Your task to perform on an android device: turn on showing notifications on the lock screen Image 0: 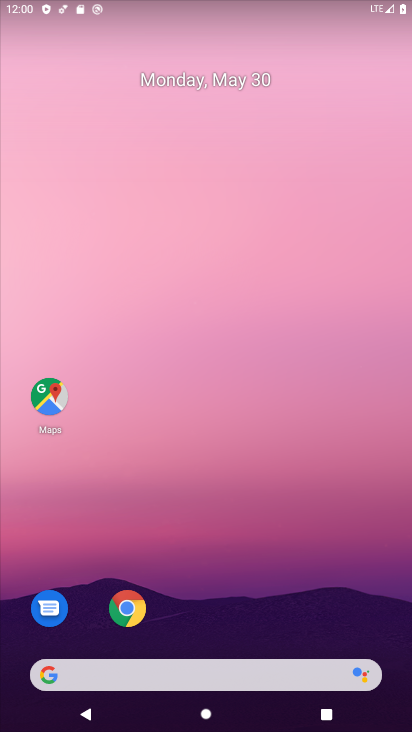
Step 0: drag from (192, 628) to (238, 132)
Your task to perform on an android device: turn on showing notifications on the lock screen Image 1: 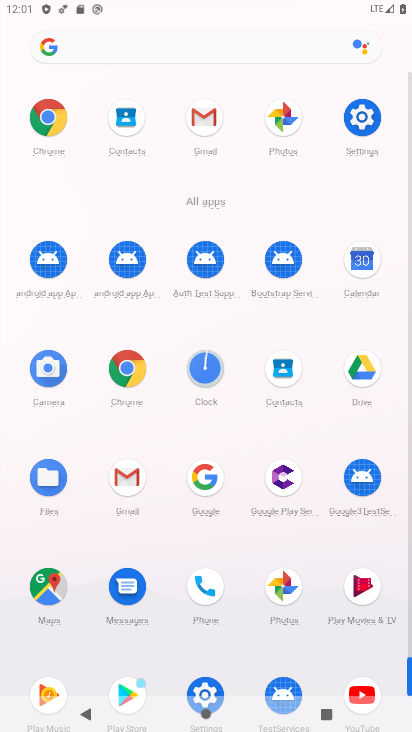
Step 1: click (360, 146)
Your task to perform on an android device: turn on showing notifications on the lock screen Image 2: 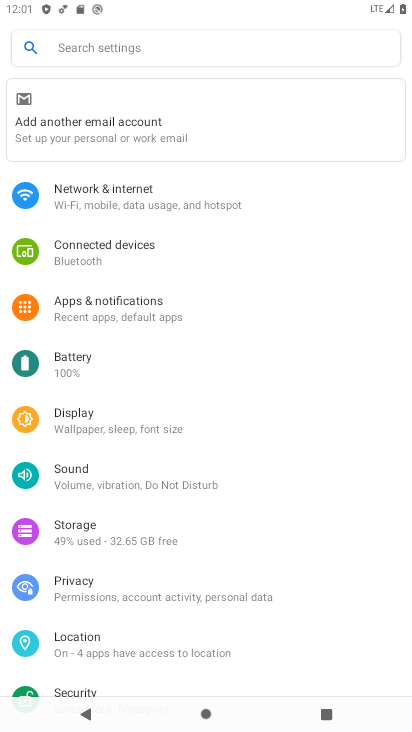
Step 2: click (134, 301)
Your task to perform on an android device: turn on showing notifications on the lock screen Image 3: 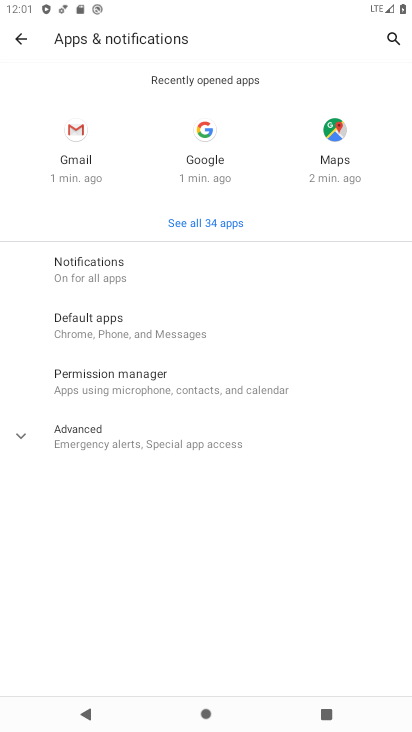
Step 3: click (144, 262)
Your task to perform on an android device: turn on showing notifications on the lock screen Image 4: 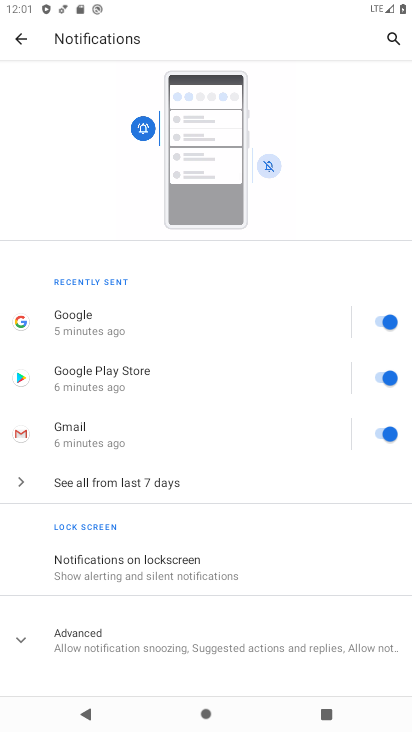
Step 4: click (155, 583)
Your task to perform on an android device: turn on showing notifications on the lock screen Image 5: 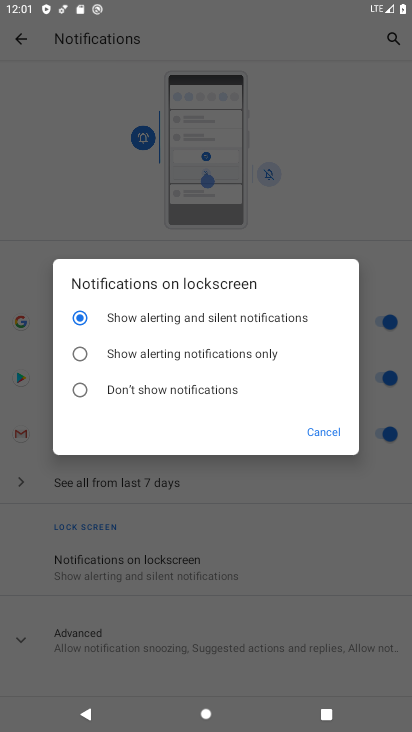
Step 5: task complete